Your task to perform on an android device: check data usage Image 0: 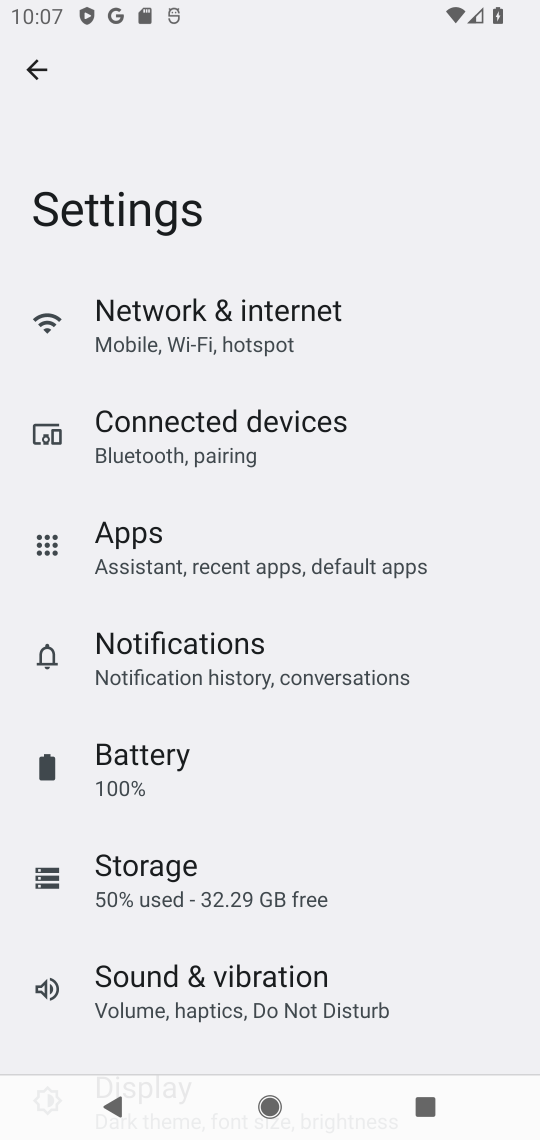
Step 0: click (179, 334)
Your task to perform on an android device: check data usage Image 1: 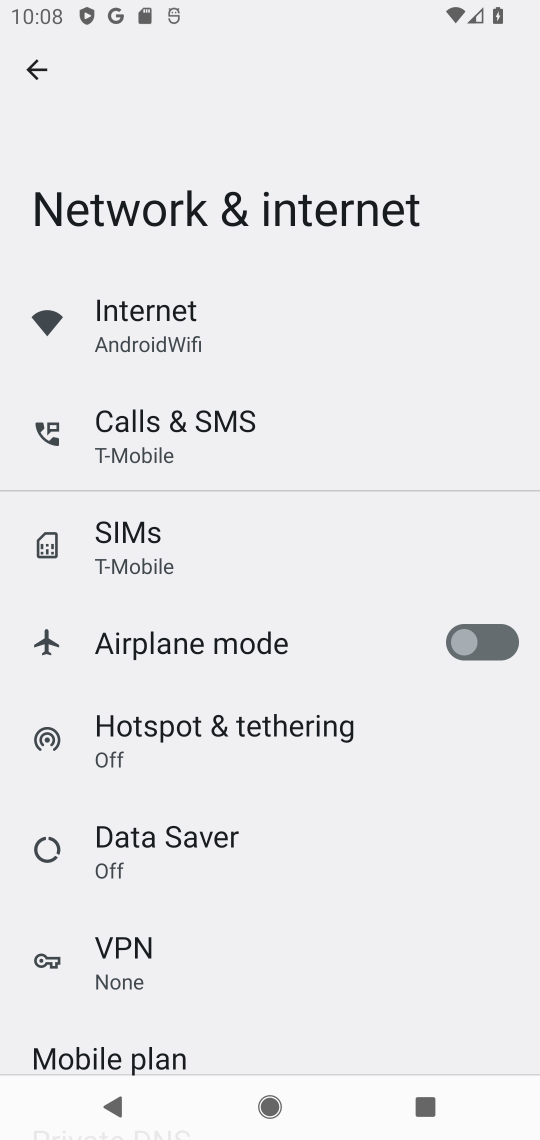
Step 1: click (146, 326)
Your task to perform on an android device: check data usage Image 2: 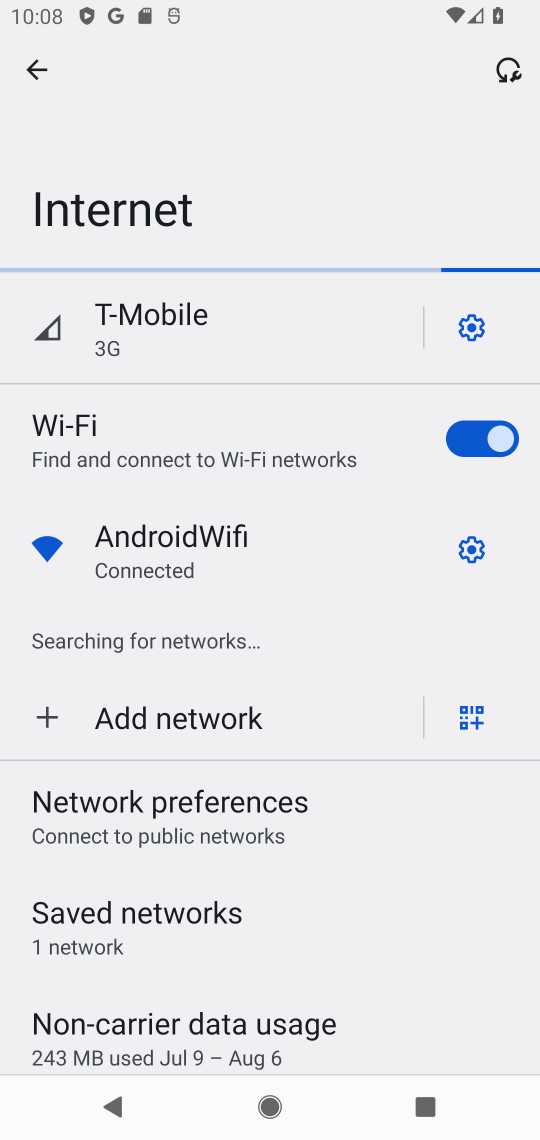
Step 2: click (468, 323)
Your task to perform on an android device: check data usage Image 3: 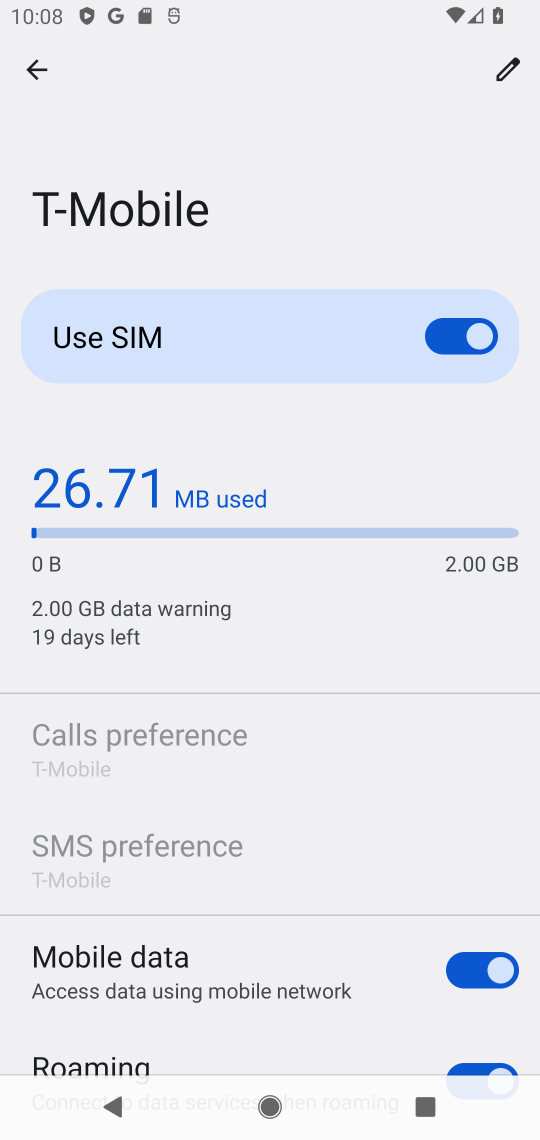
Step 3: task complete